Your task to perform on an android device: check android version Image 0: 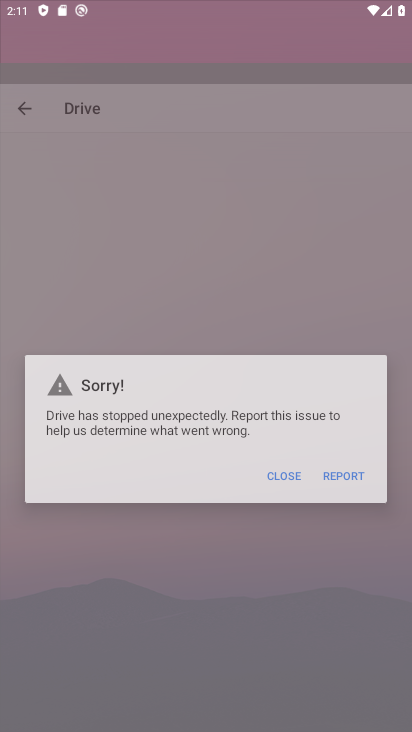
Step 0: press home button
Your task to perform on an android device: check android version Image 1: 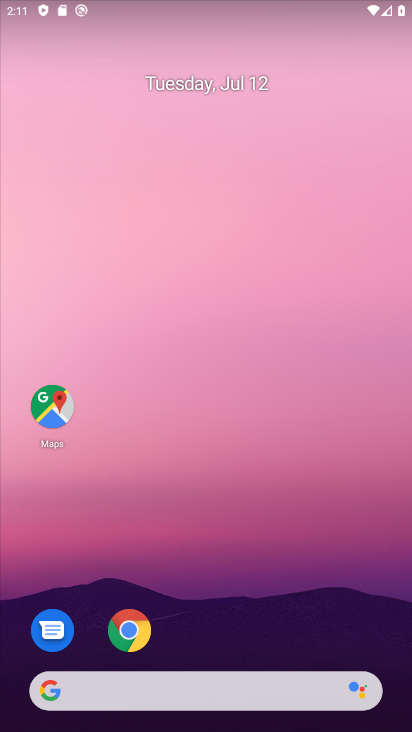
Step 1: drag from (348, 628) to (294, 95)
Your task to perform on an android device: check android version Image 2: 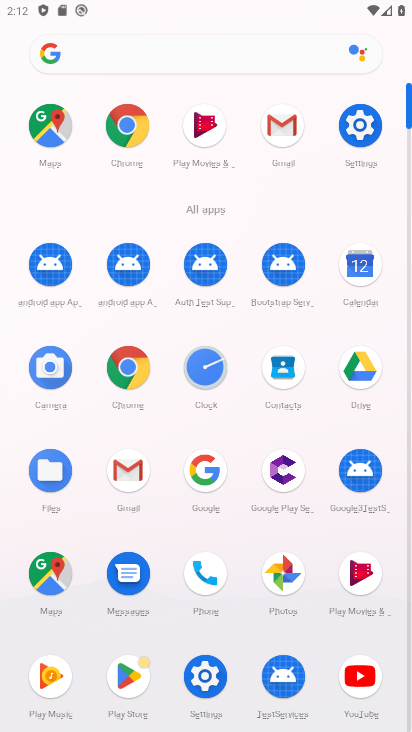
Step 2: click (206, 677)
Your task to perform on an android device: check android version Image 3: 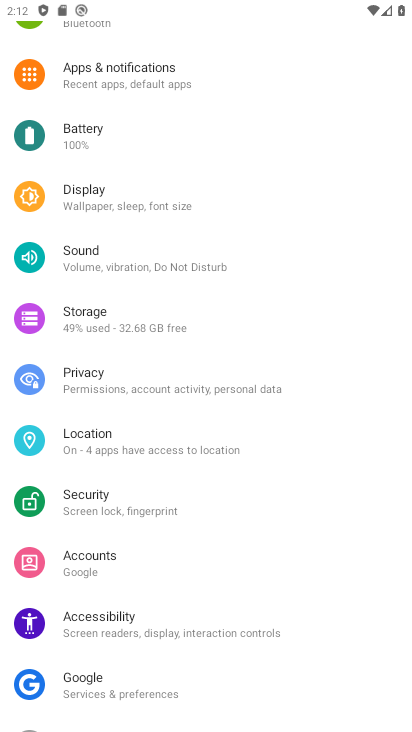
Step 3: drag from (274, 649) to (303, 227)
Your task to perform on an android device: check android version Image 4: 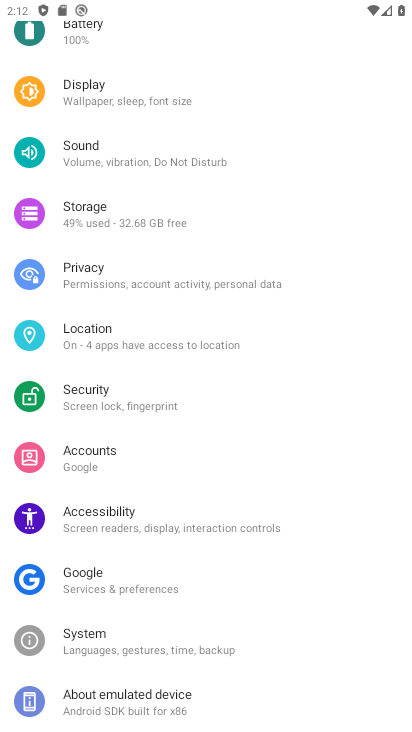
Step 4: click (128, 699)
Your task to perform on an android device: check android version Image 5: 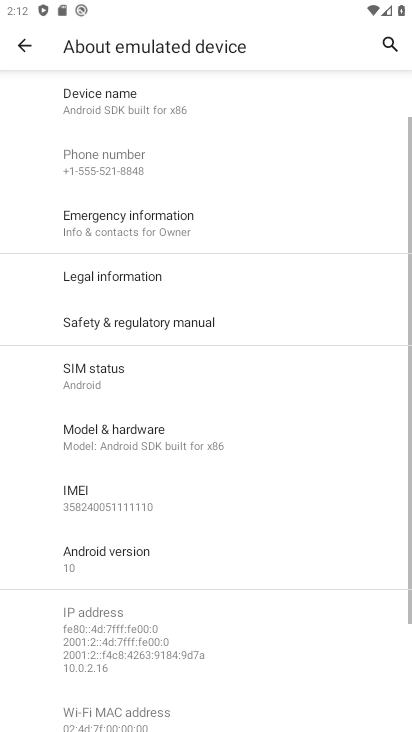
Step 5: click (105, 544)
Your task to perform on an android device: check android version Image 6: 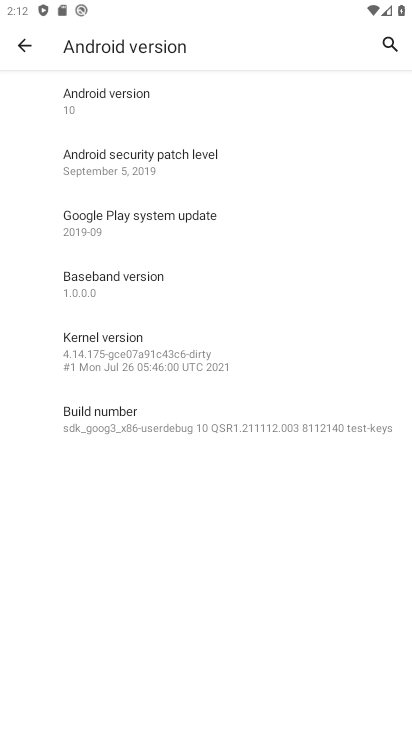
Step 6: task complete